Your task to perform on an android device: find photos in the google photos app Image 0: 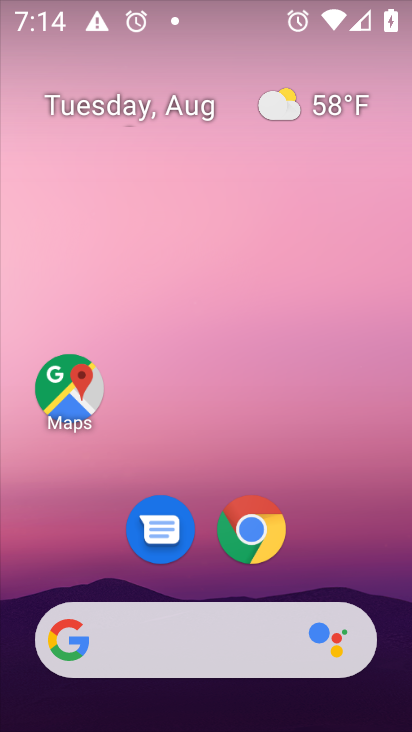
Step 0: drag from (215, 568) to (209, 52)
Your task to perform on an android device: find photos in the google photos app Image 1: 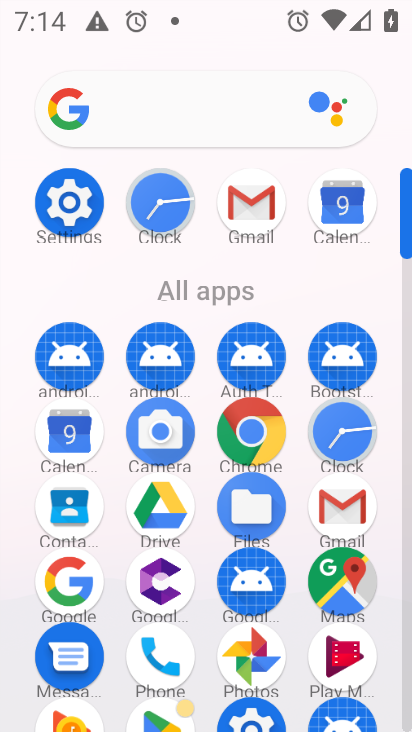
Step 1: click (252, 659)
Your task to perform on an android device: find photos in the google photos app Image 2: 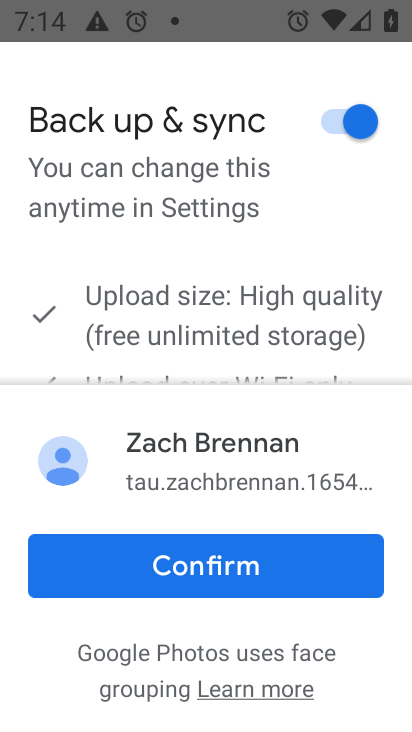
Step 2: click (255, 582)
Your task to perform on an android device: find photos in the google photos app Image 3: 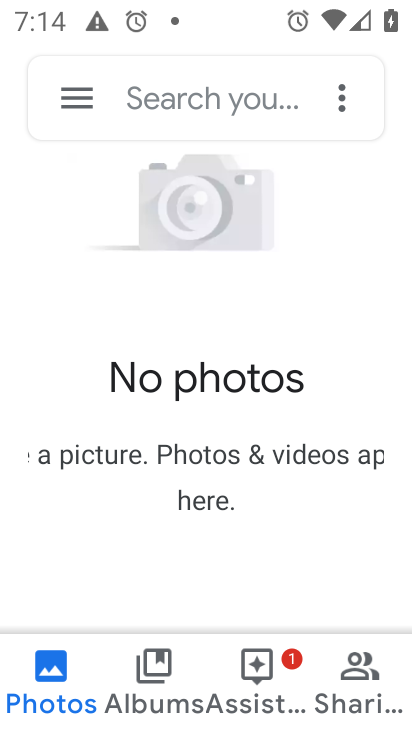
Step 3: task complete